Your task to perform on an android device: What's on my calendar today? Image 0: 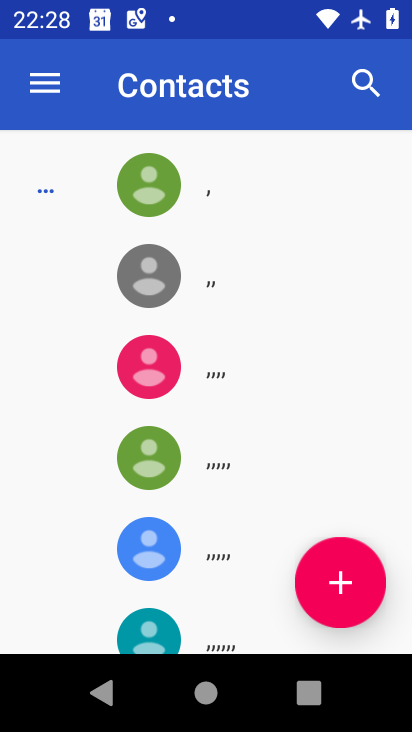
Step 0: press home button
Your task to perform on an android device: What's on my calendar today? Image 1: 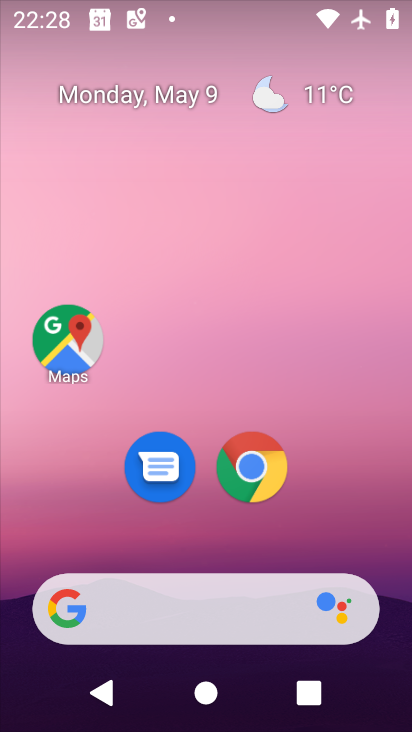
Step 1: drag from (307, 508) to (339, 246)
Your task to perform on an android device: What's on my calendar today? Image 2: 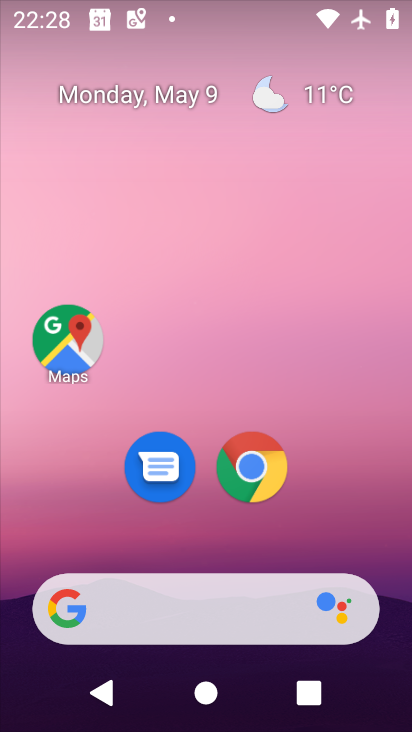
Step 2: drag from (336, 462) to (351, 264)
Your task to perform on an android device: What's on my calendar today? Image 3: 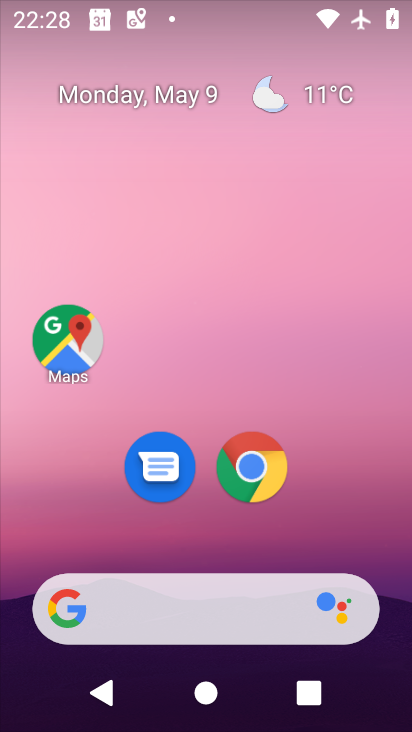
Step 3: drag from (315, 538) to (348, 203)
Your task to perform on an android device: What's on my calendar today? Image 4: 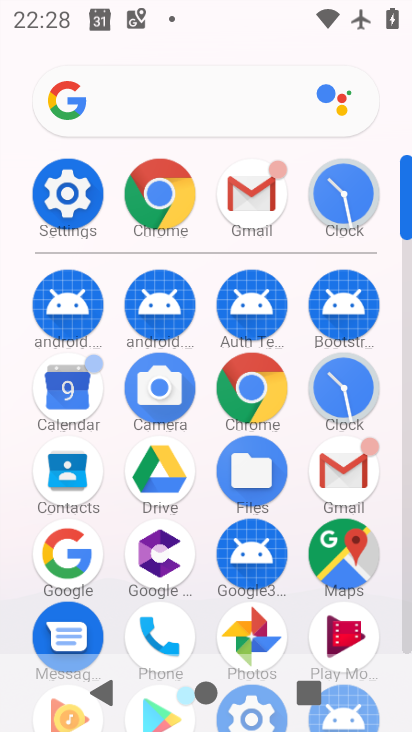
Step 4: click (64, 384)
Your task to perform on an android device: What's on my calendar today? Image 5: 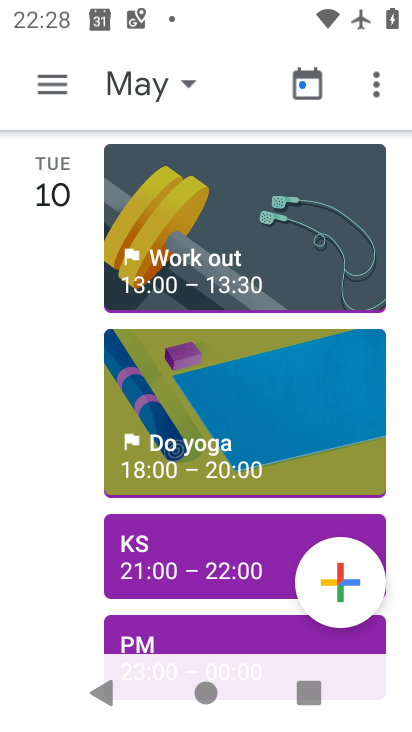
Step 5: click (45, 84)
Your task to perform on an android device: What's on my calendar today? Image 6: 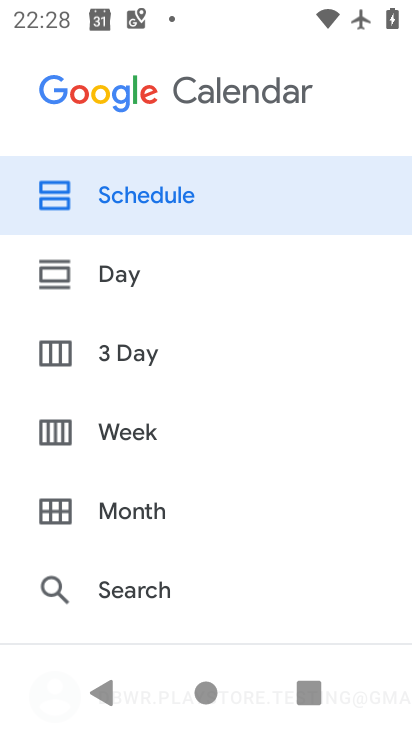
Step 6: click (132, 499)
Your task to perform on an android device: What's on my calendar today? Image 7: 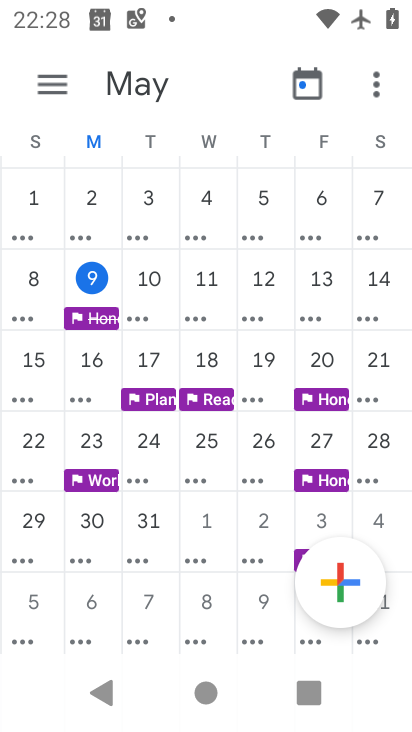
Step 7: click (94, 295)
Your task to perform on an android device: What's on my calendar today? Image 8: 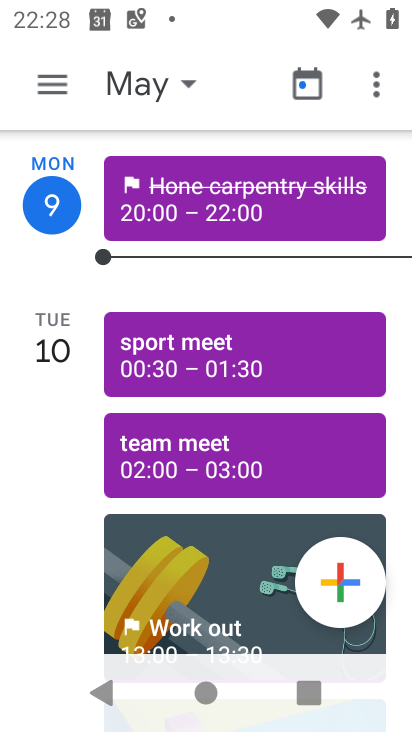
Step 8: press back button
Your task to perform on an android device: What's on my calendar today? Image 9: 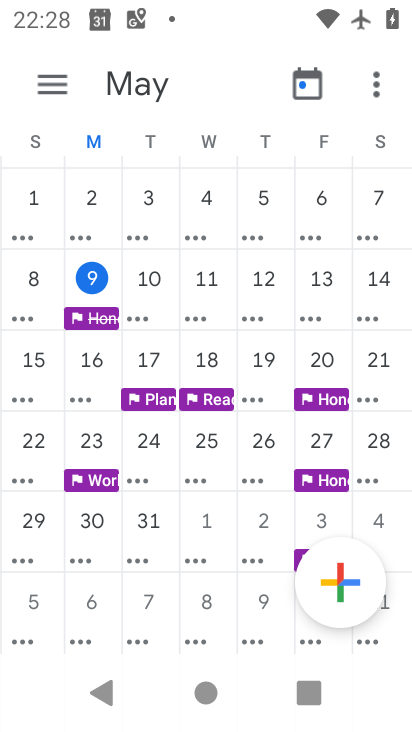
Step 9: click (134, 281)
Your task to perform on an android device: What's on my calendar today? Image 10: 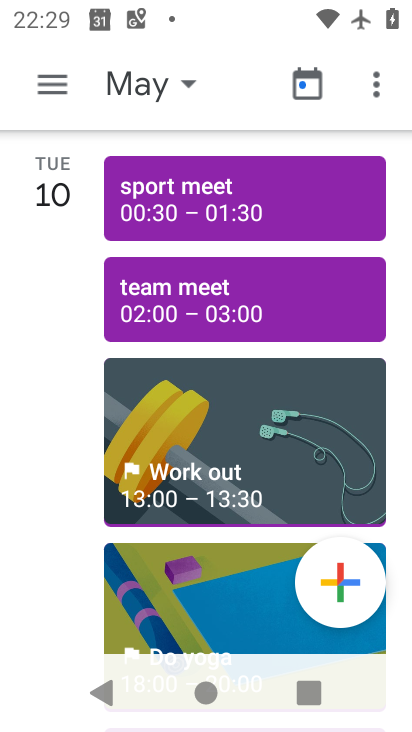
Step 10: task complete